Your task to perform on an android device: Go to Maps Image 0: 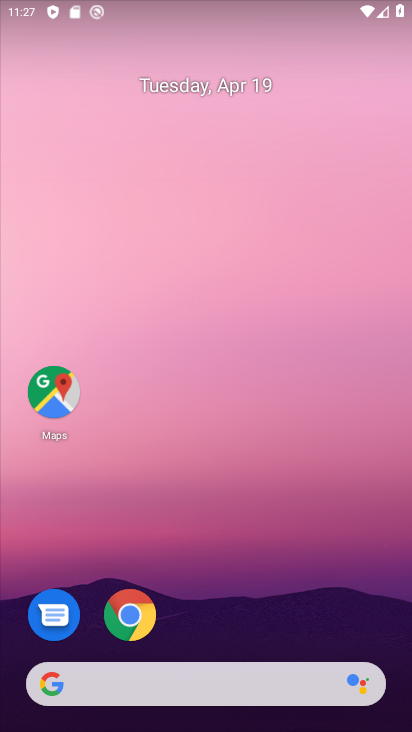
Step 0: drag from (274, 549) to (320, 442)
Your task to perform on an android device: Go to Maps Image 1: 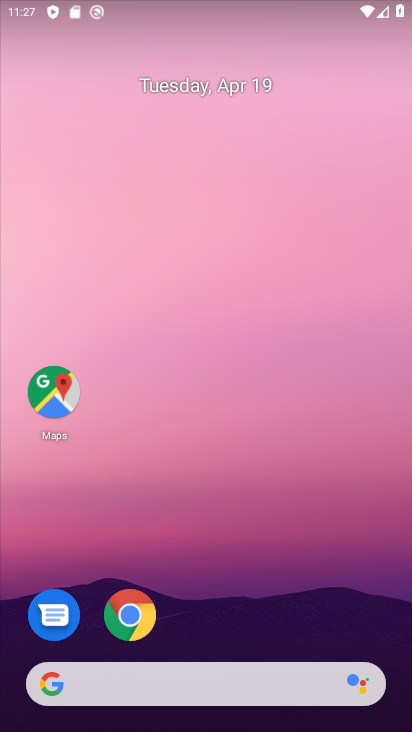
Step 1: click (51, 396)
Your task to perform on an android device: Go to Maps Image 2: 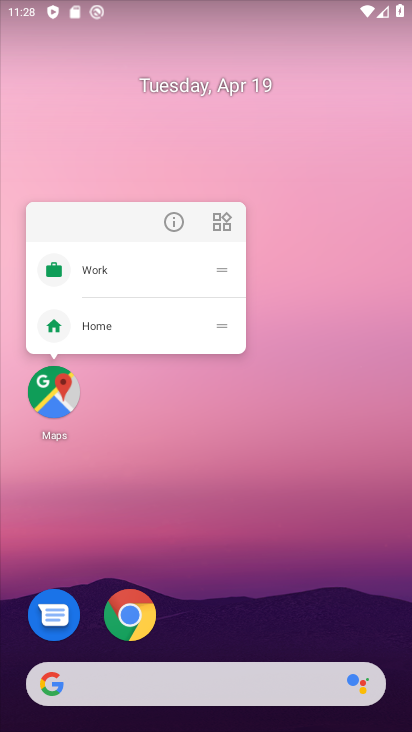
Step 2: click (60, 403)
Your task to perform on an android device: Go to Maps Image 3: 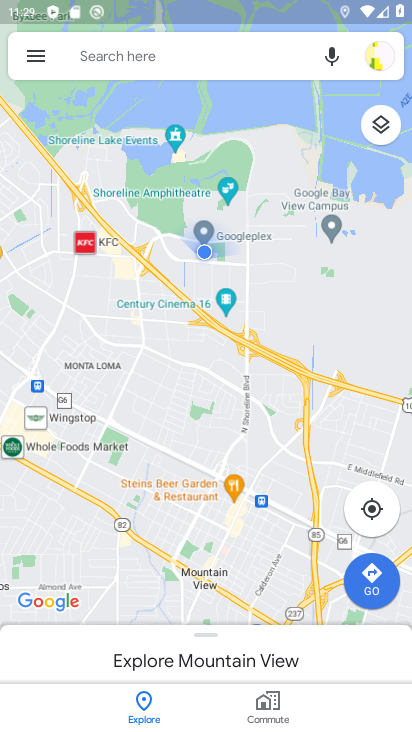
Step 3: task complete